Your task to perform on an android device: star an email in the gmail app Image 0: 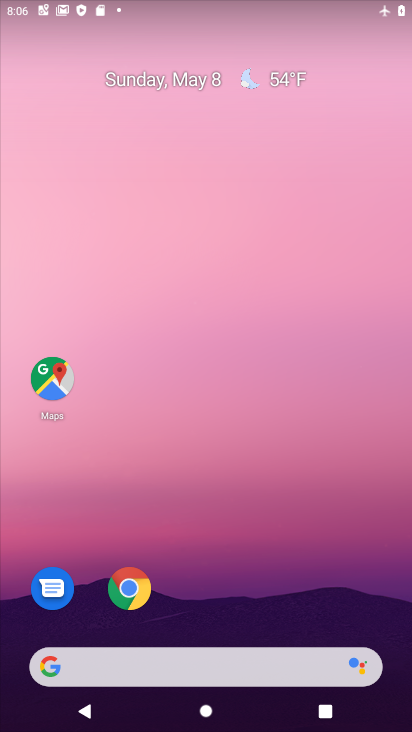
Step 0: drag from (270, 590) to (238, 27)
Your task to perform on an android device: star an email in the gmail app Image 1: 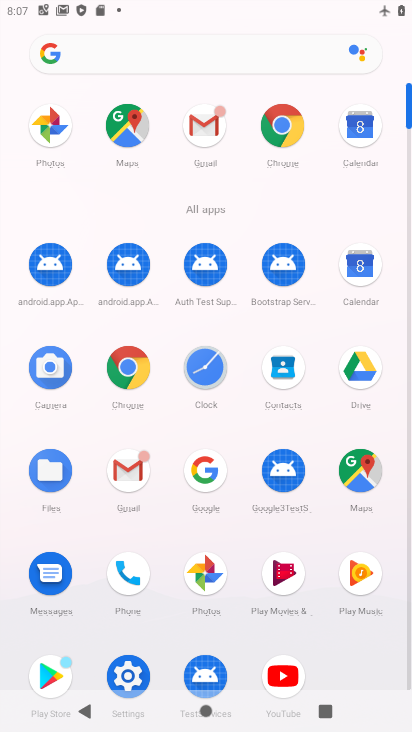
Step 1: click (119, 478)
Your task to perform on an android device: star an email in the gmail app Image 2: 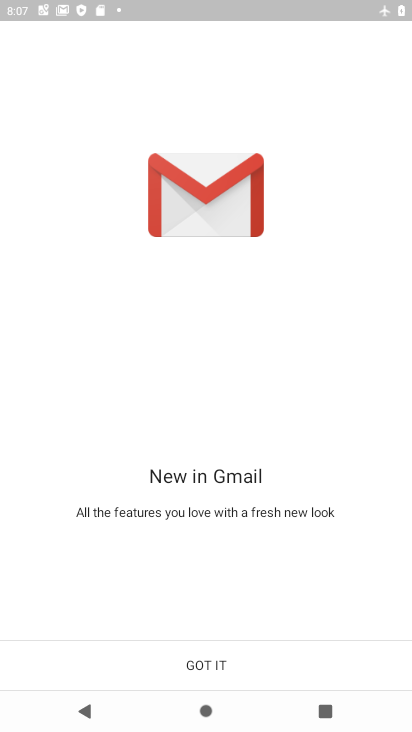
Step 2: click (205, 667)
Your task to perform on an android device: star an email in the gmail app Image 3: 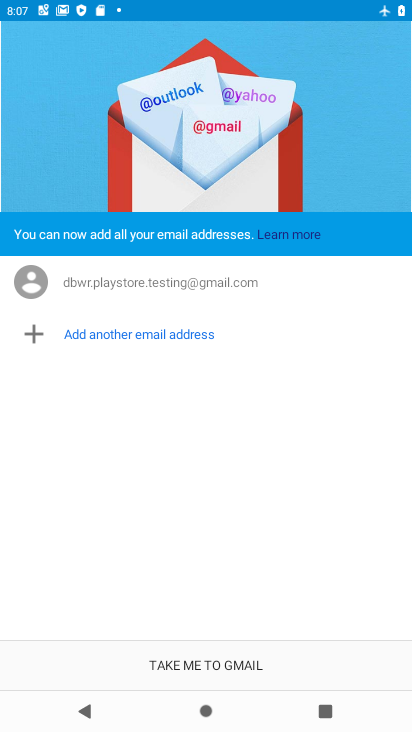
Step 3: click (260, 653)
Your task to perform on an android device: star an email in the gmail app Image 4: 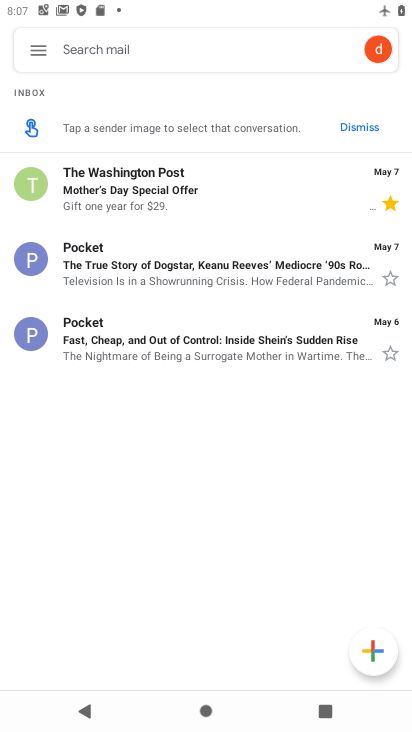
Step 4: click (386, 281)
Your task to perform on an android device: star an email in the gmail app Image 5: 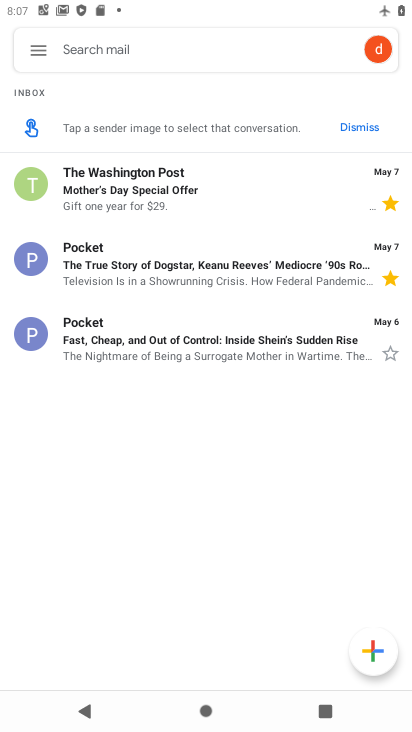
Step 5: task complete